Your task to perform on an android device: choose inbox layout in the gmail app Image 0: 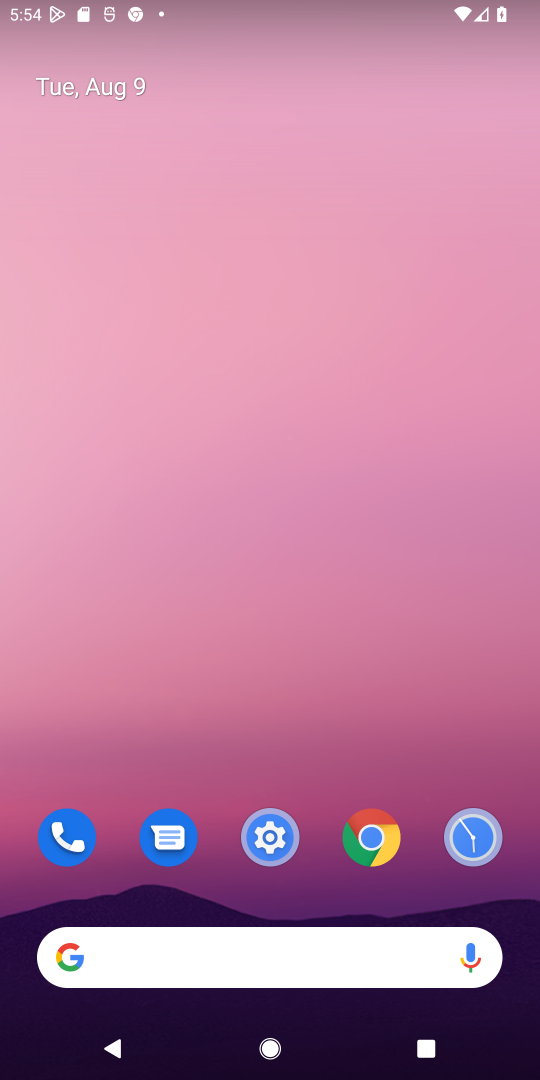
Step 0: drag from (157, 955) to (252, 443)
Your task to perform on an android device: choose inbox layout in the gmail app Image 1: 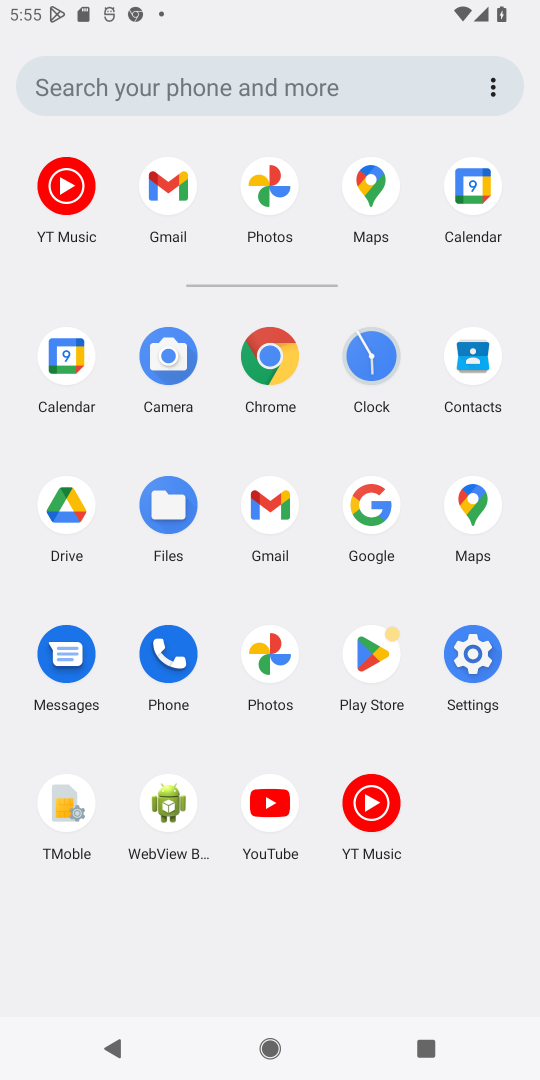
Step 1: click (278, 496)
Your task to perform on an android device: choose inbox layout in the gmail app Image 2: 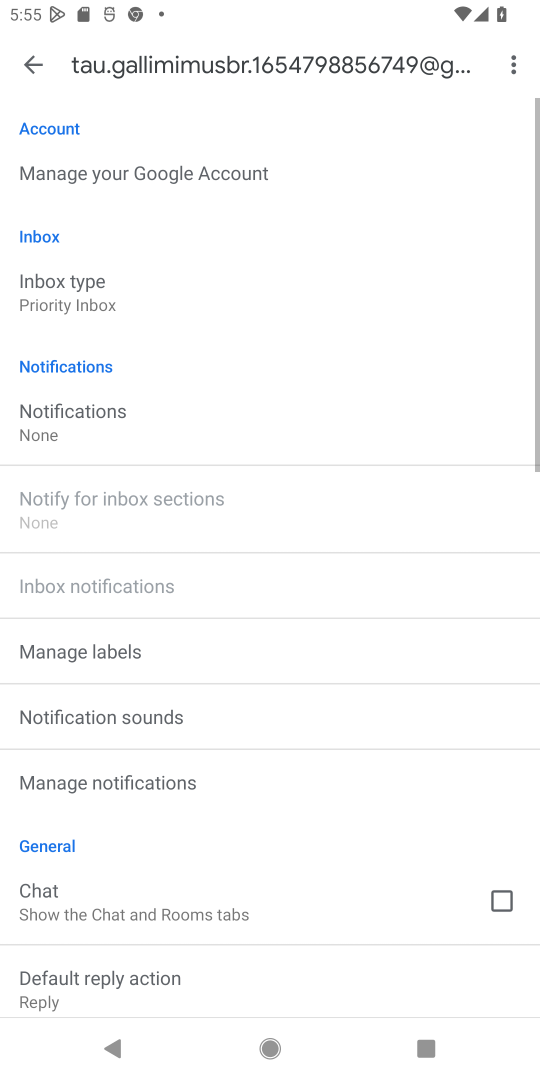
Step 2: click (64, 301)
Your task to perform on an android device: choose inbox layout in the gmail app Image 3: 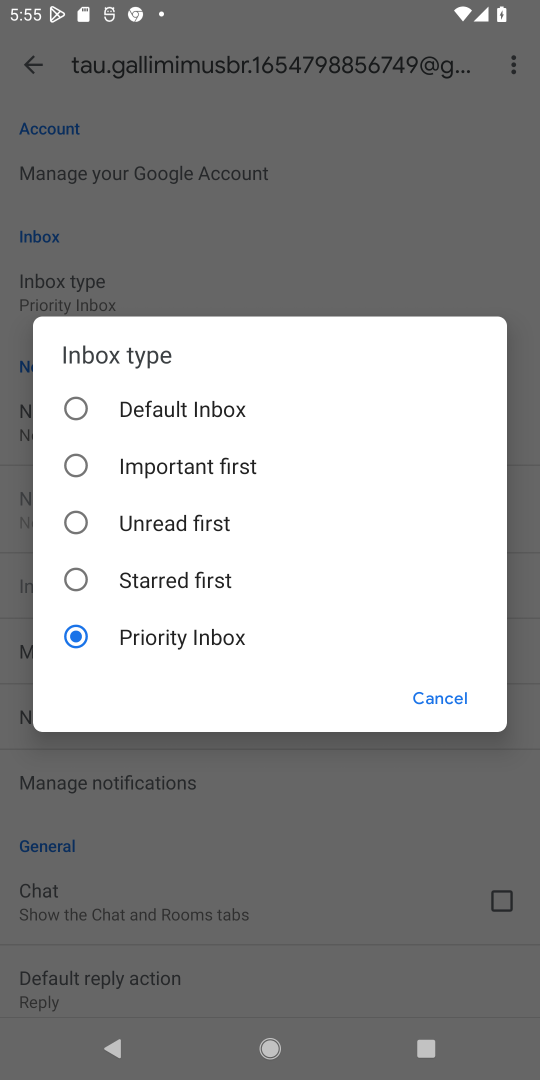
Step 3: click (171, 457)
Your task to perform on an android device: choose inbox layout in the gmail app Image 4: 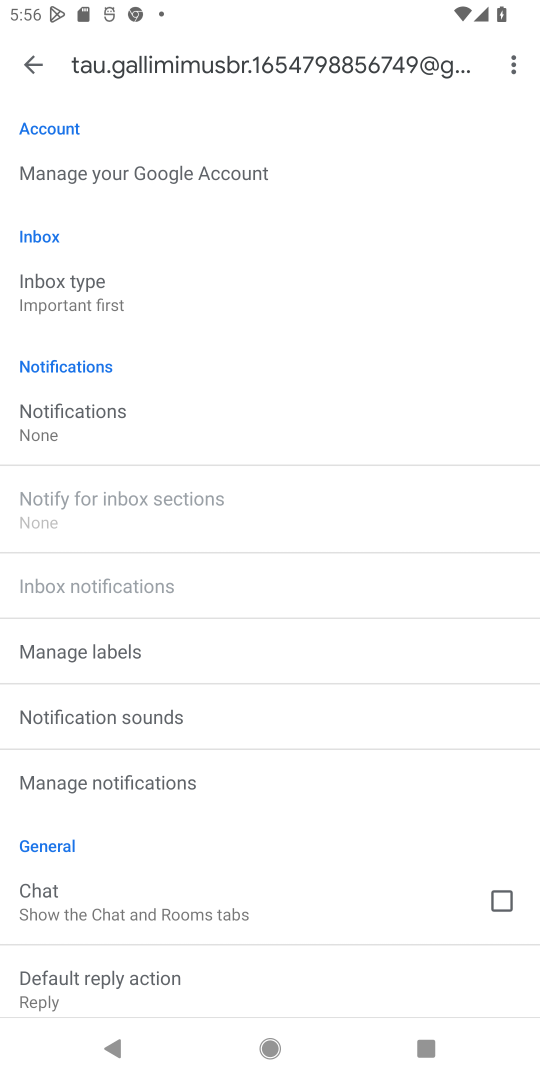
Step 4: task complete